Your task to perform on an android device: check google app version Image 0: 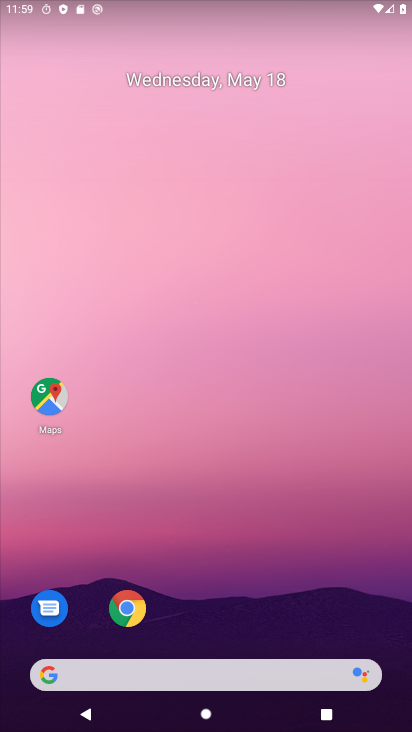
Step 0: click (128, 608)
Your task to perform on an android device: check google app version Image 1: 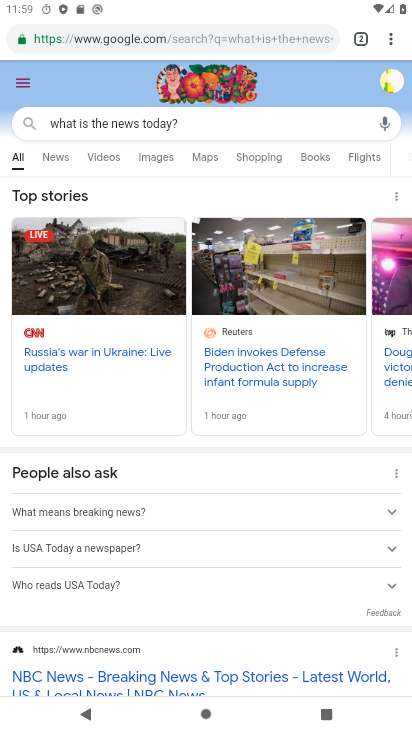
Step 1: click (394, 29)
Your task to perform on an android device: check google app version Image 2: 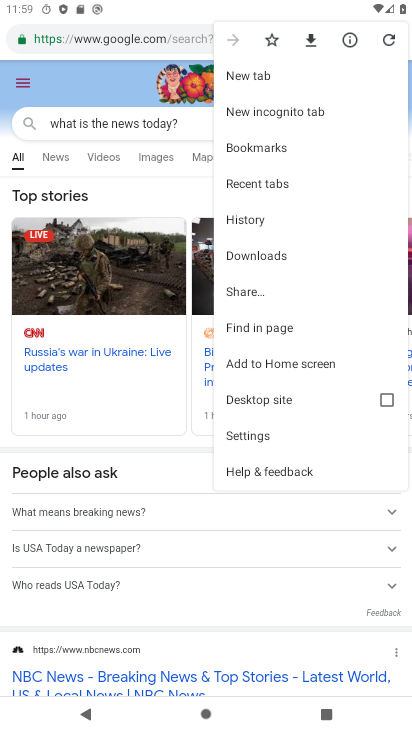
Step 2: click (308, 466)
Your task to perform on an android device: check google app version Image 3: 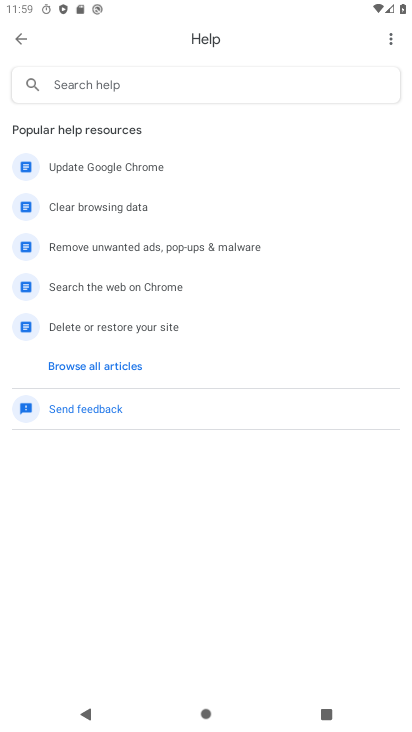
Step 3: click (394, 37)
Your task to perform on an android device: check google app version Image 4: 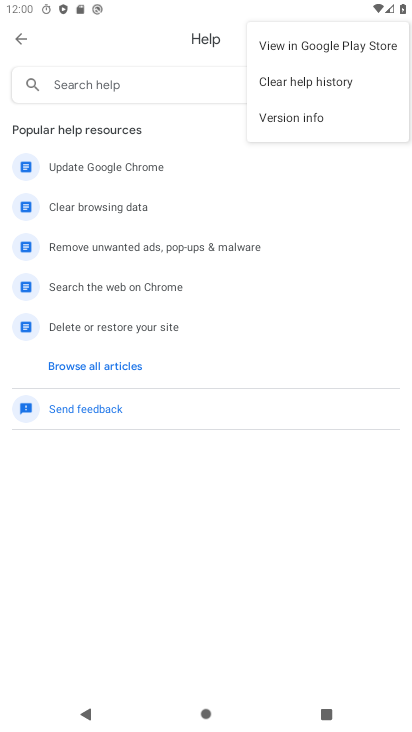
Step 4: click (366, 123)
Your task to perform on an android device: check google app version Image 5: 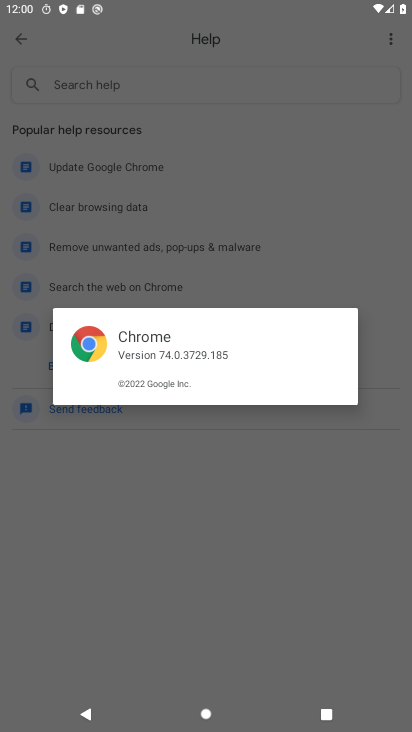
Step 5: task complete